Your task to perform on an android device: Open Chrome and go to the settings page Image 0: 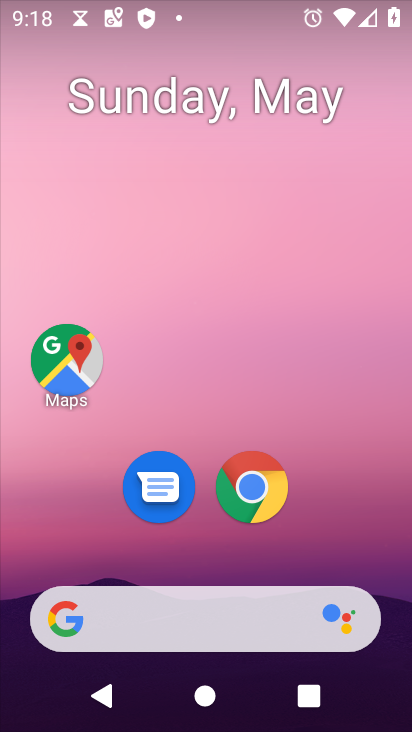
Step 0: drag from (344, 508) to (309, 133)
Your task to perform on an android device: Open Chrome and go to the settings page Image 1: 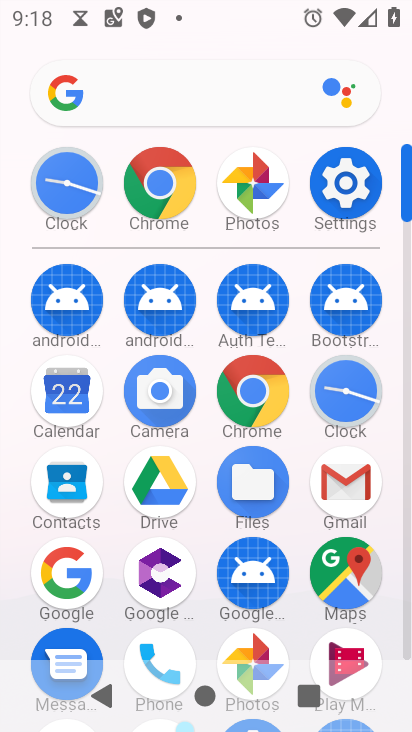
Step 1: click (265, 391)
Your task to perform on an android device: Open Chrome and go to the settings page Image 2: 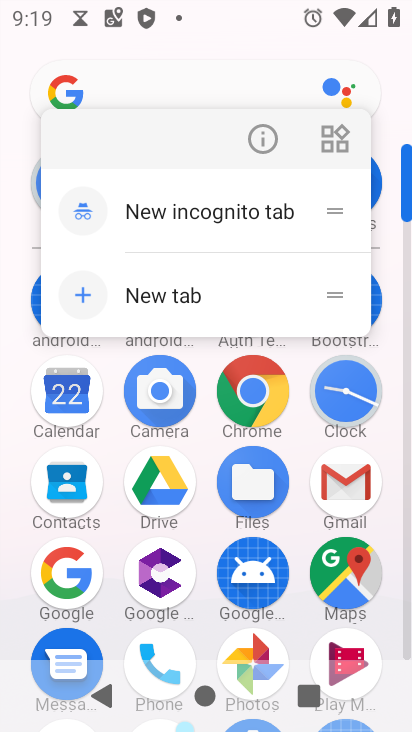
Step 2: click (231, 361)
Your task to perform on an android device: Open Chrome and go to the settings page Image 3: 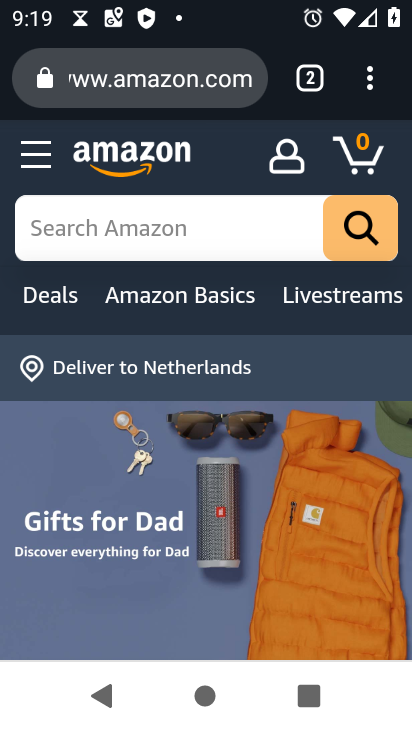
Step 3: task complete